Your task to perform on an android device: set default search engine in the chrome app Image 0: 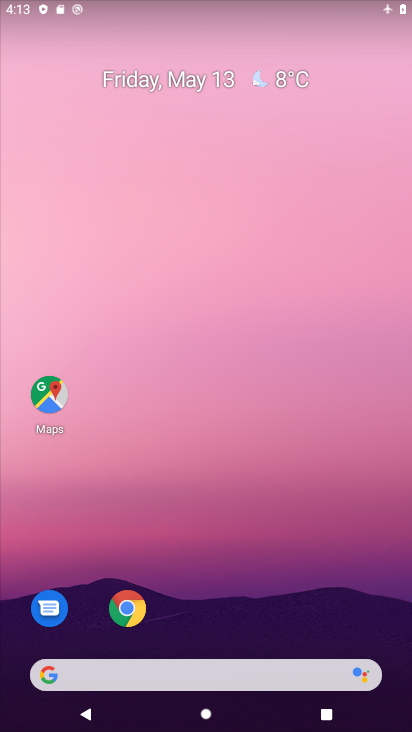
Step 0: click (124, 607)
Your task to perform on an android device: set default search engine in the chrome app Image 1: 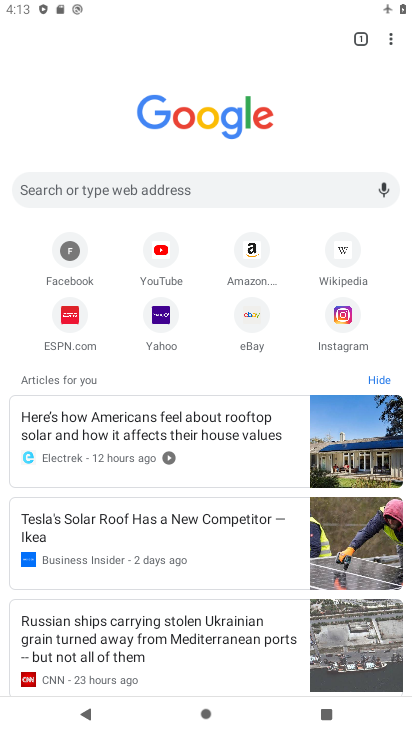
Step 1: click (389, 35)
Your task to perform on an android device: set default search engine in the chrome app Image 2: 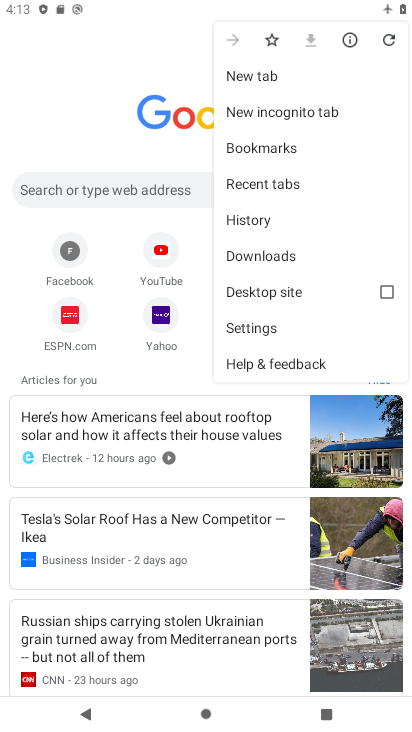
Step 2: click (255, 327)
Your task to perform on an android device: set default search engine in the chrome app Image 3: 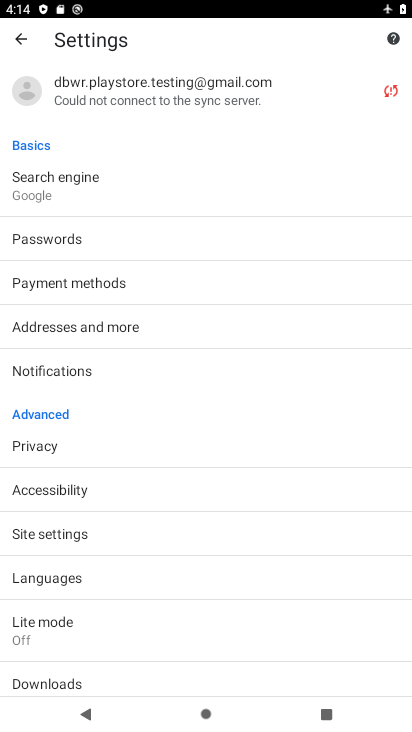
Step 3: click (46, 178)
Your task to perform on an android device: set default search engine in the chrome app Image 4: 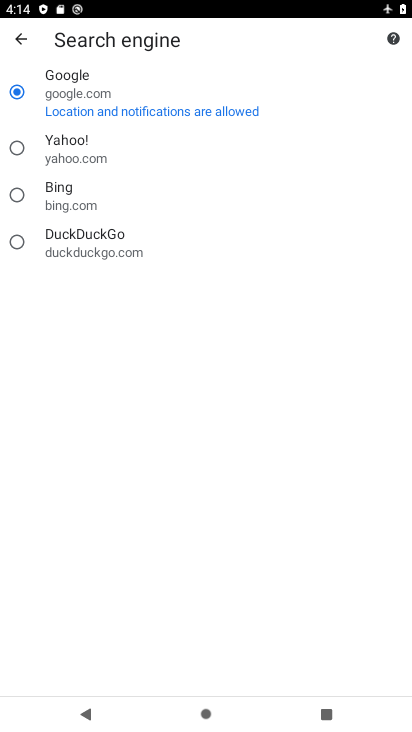
Step 4: click (16, 194)
Your task to perform on an android device: set default search engine in the chrome app Image 5: 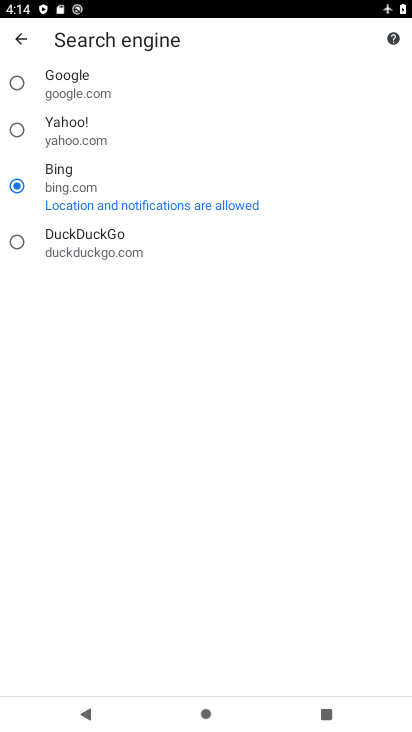
Step 5: task complete